Your task to perform on an android device: What is the news today? Image 0: 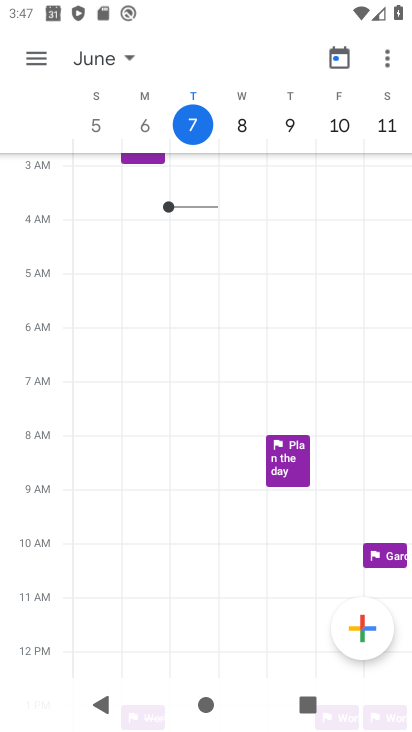
Step 0: press home button
Your task to perform on an android device: What is the news today? Image 1: 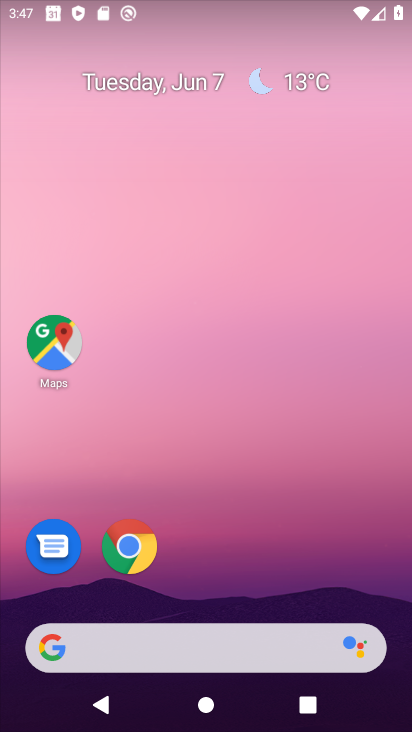
Step 1: click (229, 664)
Your task to perform on an android device: What is the news today? Image 2: 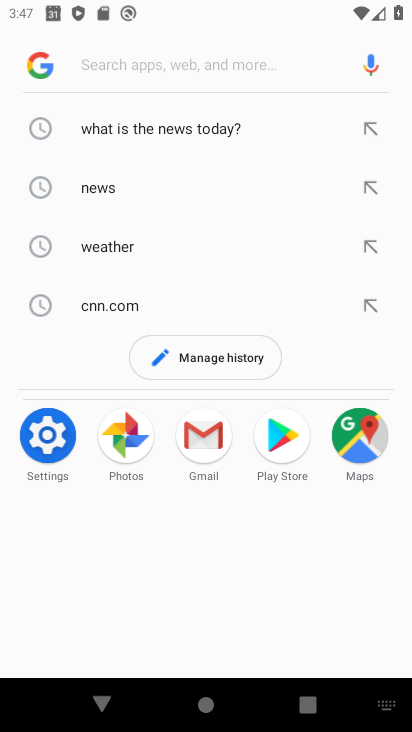
Step 2: click (103, 198)
Your task to perform on an android device: What is the news today? Image 3: 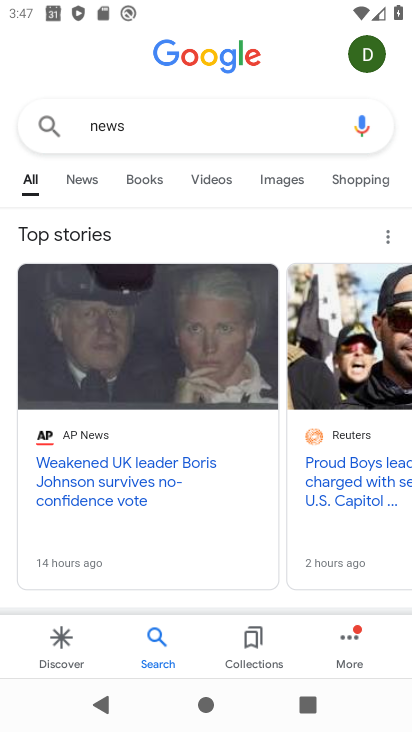
Step 3: task complete